Your task to perform on an android device: Open Google Maps Image 0: 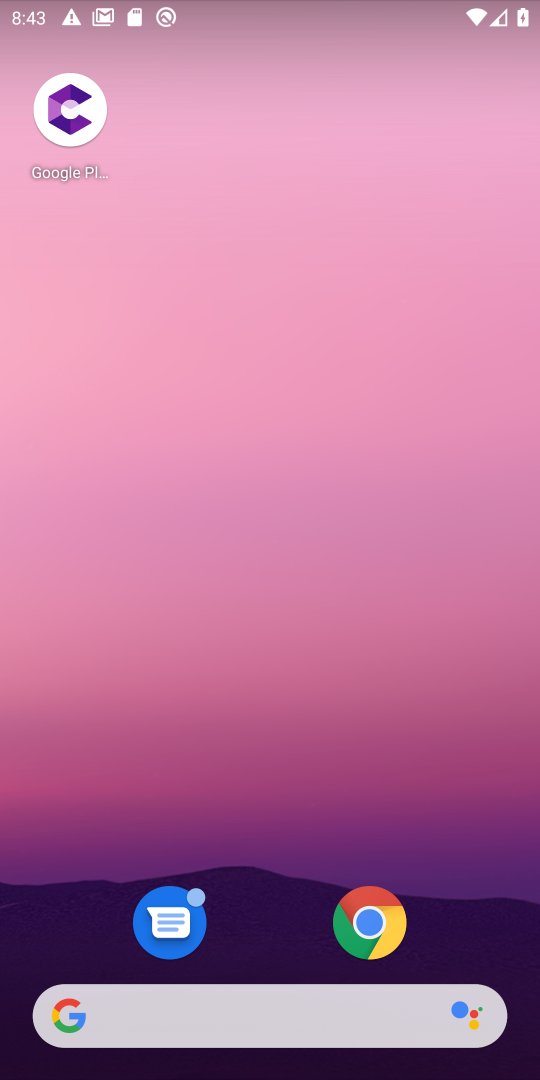
Step 0: drag from (500, 945) to (438, 222)
Your task to perform on an android device: Open Google Maps Image 1: 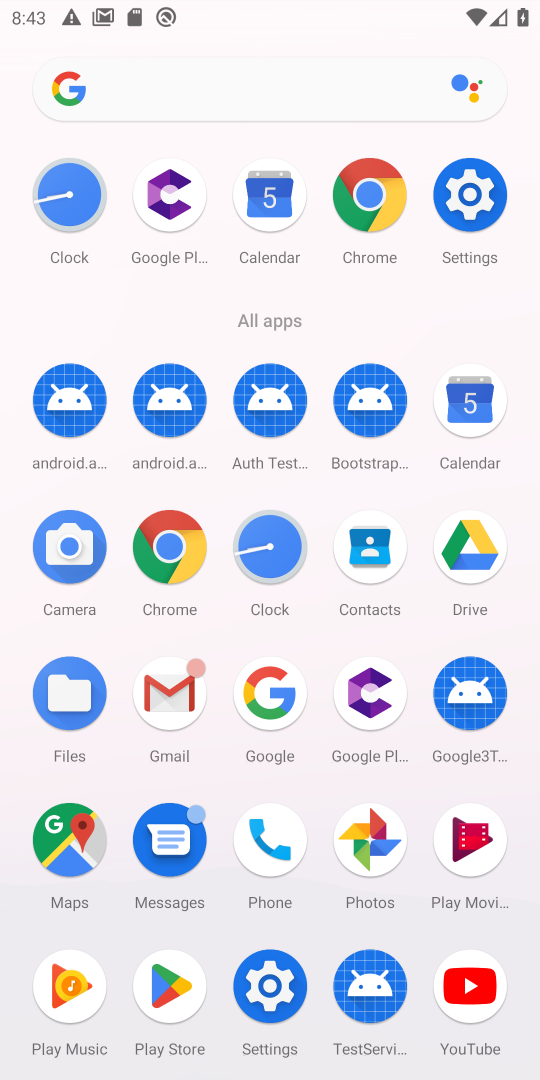
Step 1: click (81, 844)
Your task to perform on an android device: Open Google Maps Image 2: 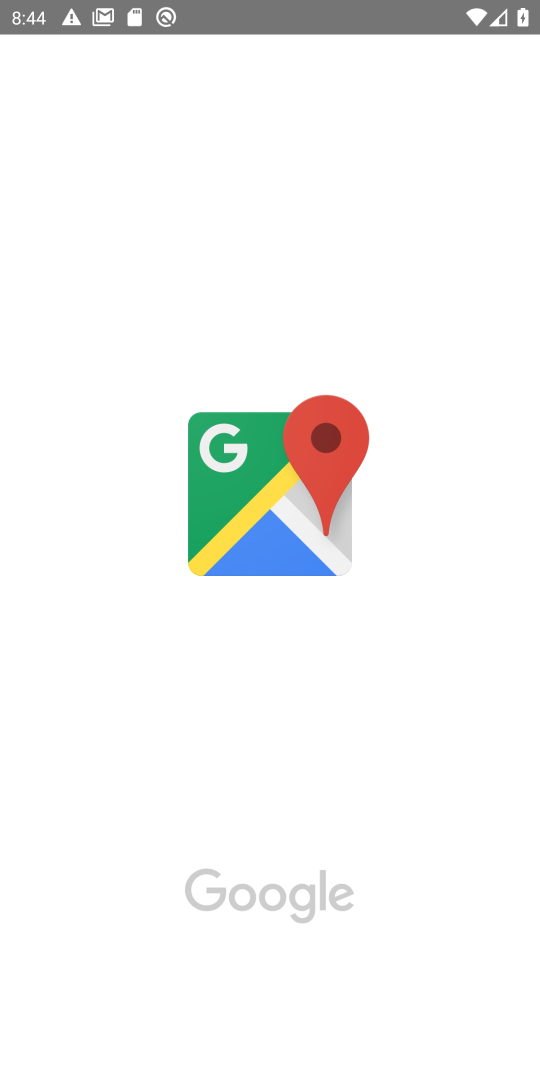
Step 2: task complete